Your task to perform on an android device: turn pop-ups on in chrome Image 0: 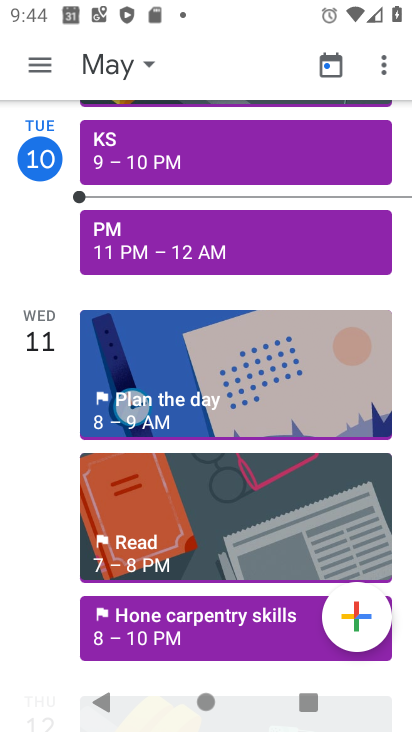
Step 0: press home button
Your task to perform on an android device: turn pop-ups on in chrome Image 1: 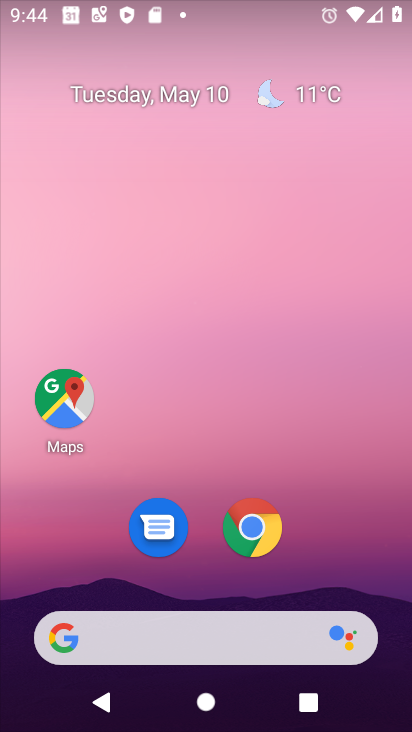
Step 1: click (245, 539)
Your task to perform on an android device: turn pop-ups on in chrome Image 2: 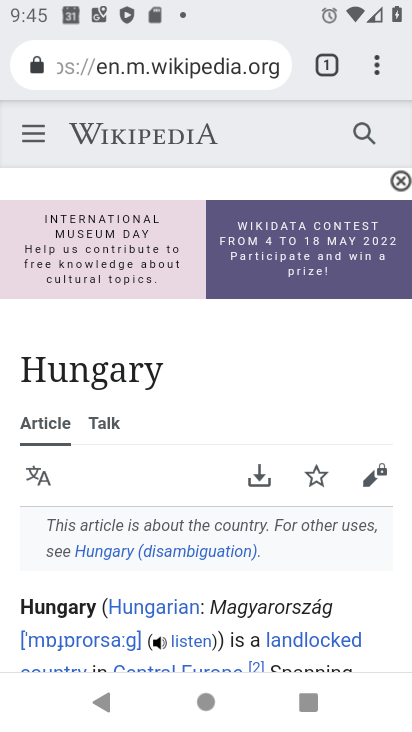
Step 2: click (383, 71)
Your task to perform on an android device: turn pop-ups on in chrome Image 3: 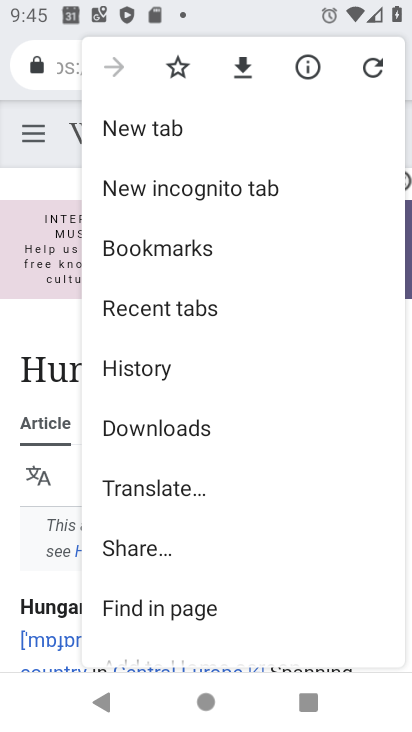
Step 3: drag from (250, 527) to (218, 232)
Your task to perform on an android device: turn pop-ups on in chrome Image 4: 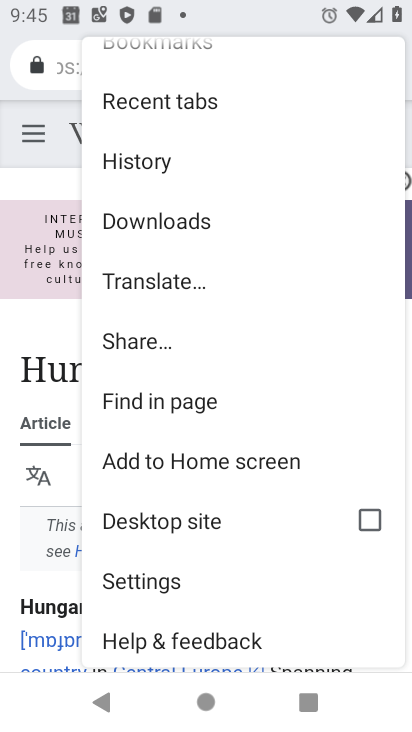
Step 4: click (264, 574)
Your task to perform on an android device: turn pop-ups on in chrome Image 5: 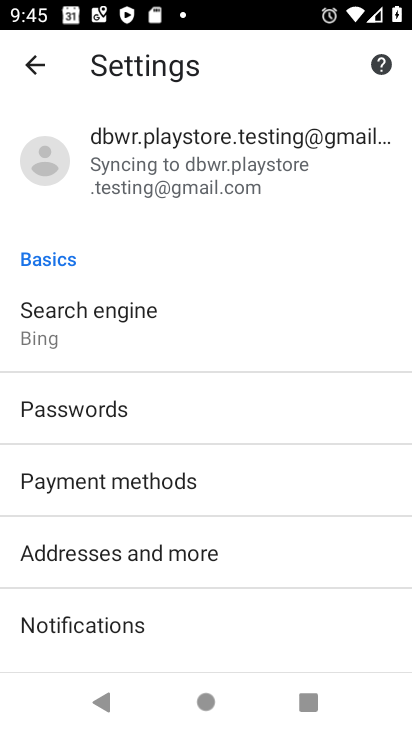
Step 5: drag from (214, 522) to (159, 217)
Your task to perform on an android device: turn pop-ups on in chrome Image 6: 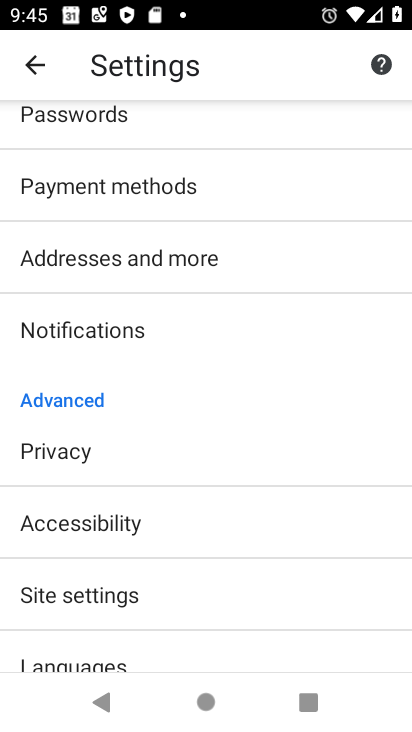
Step 6: click (226, 587)
Your task to perform on an android device: turn pop-ups on in chrome Image 7: 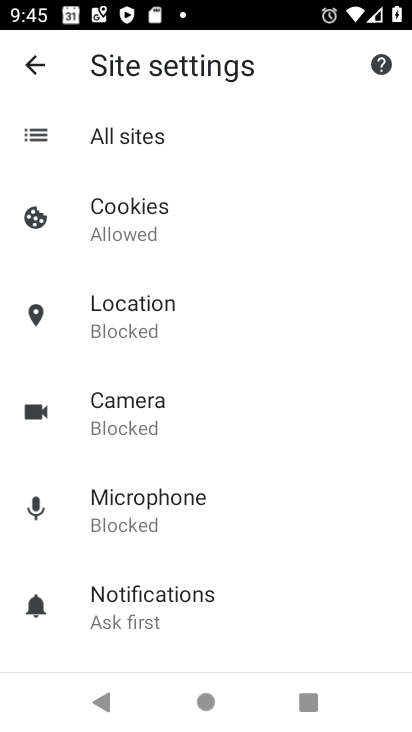
Step 7: drag from (226, 587) to (190, 292)
Your task to perform on an android device: turn pop-ups on in chrome Image 8: 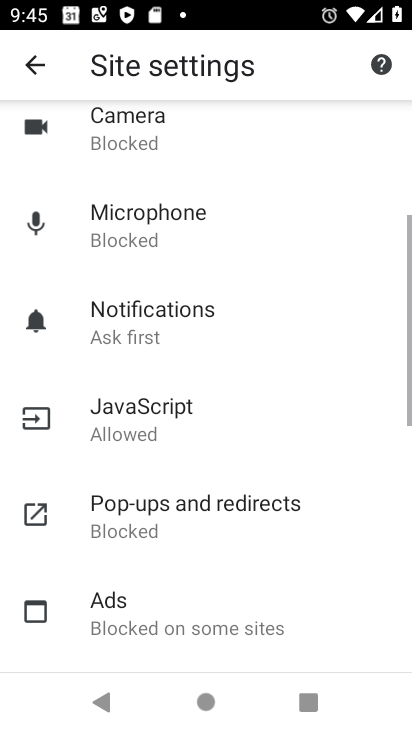
Step 8: click (245, 502)
Your task to perform on an android device: turn pop-ups on in chrome Image 9: 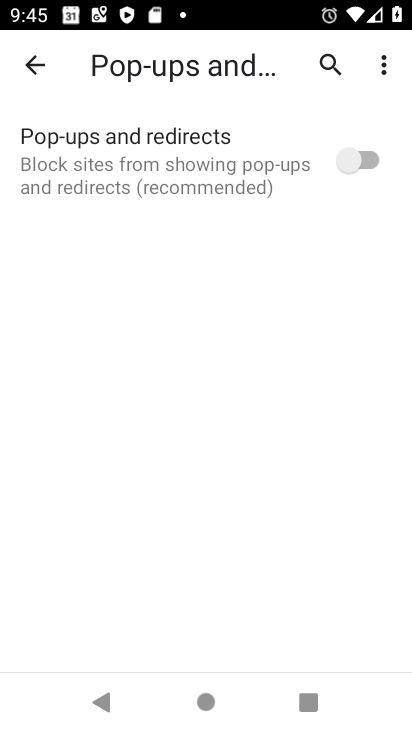
Step 9: click (351, 166)
Your task to perform on an android device: turn pop-ups on in chrome Image 10: 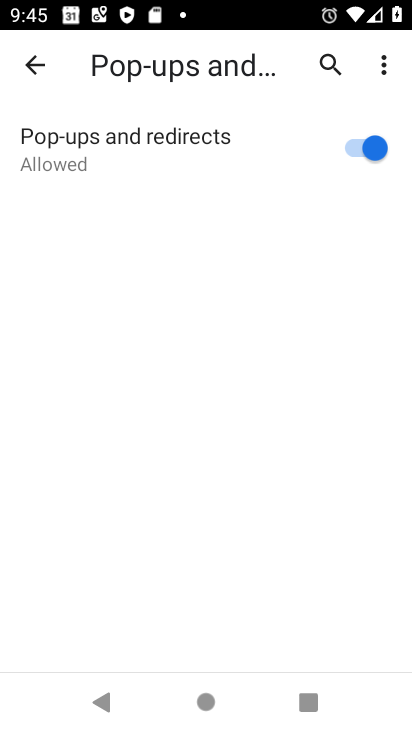
Step 10: task complete